Your task to perform on an android device: change text size in settings app Image 0: 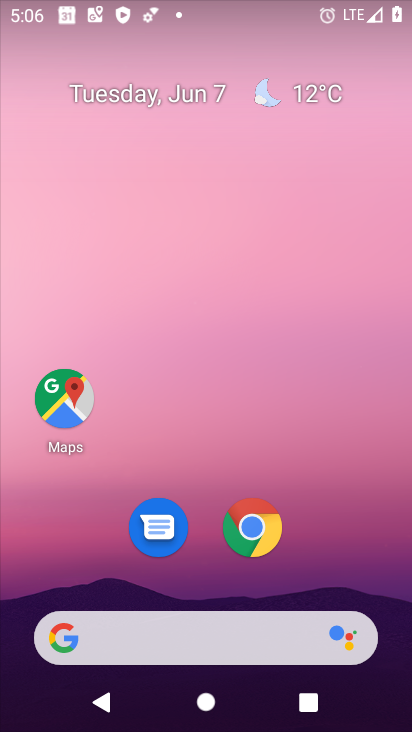
Step 0: drag from (322, 555) to (250, 34)
Your task to perform on an android device: change text size in settings app Image 1: 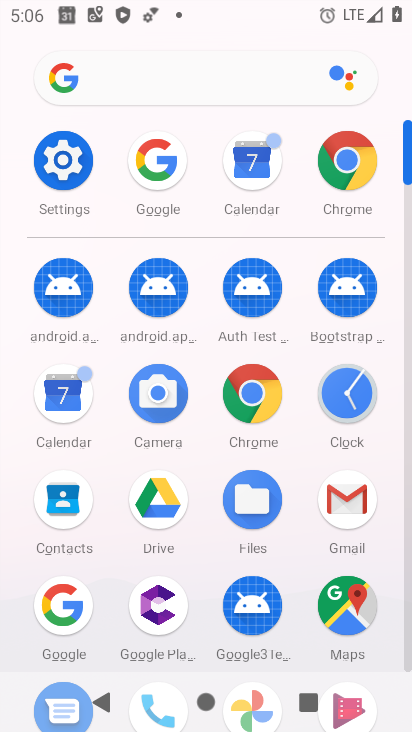
Step 1: click (66, 159)
Your task to perform on an android device: change text size in settings app Image 2: 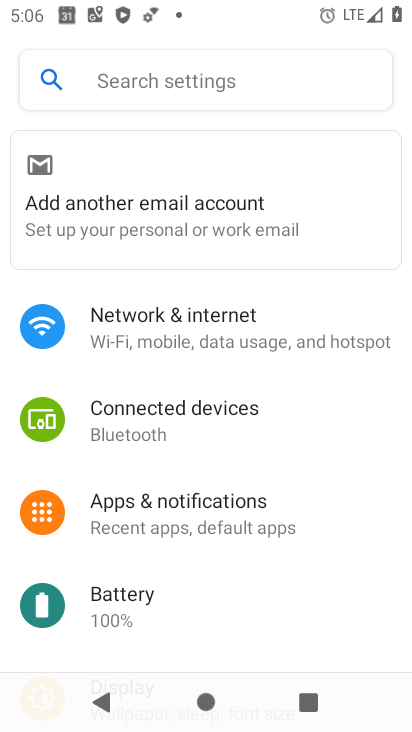
Step 2: drag from (199, 570) to (192, 382)
Your task to perform on an android device: change text size in settings app Image 3: 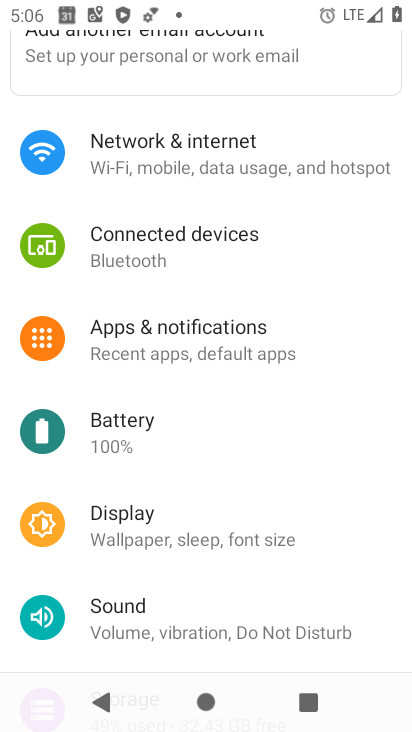
Step 3: drag from (164, 575) to (210, 377)
Your task to perform on an android device: change text size in settings app Image 4: 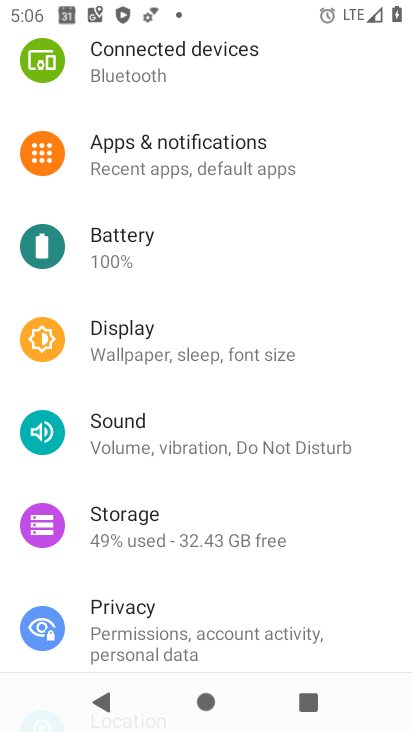
Step 4: drag from (162, 584) to (218, 436)
Your task to perform on an android device: change text size in settings app Image 5: 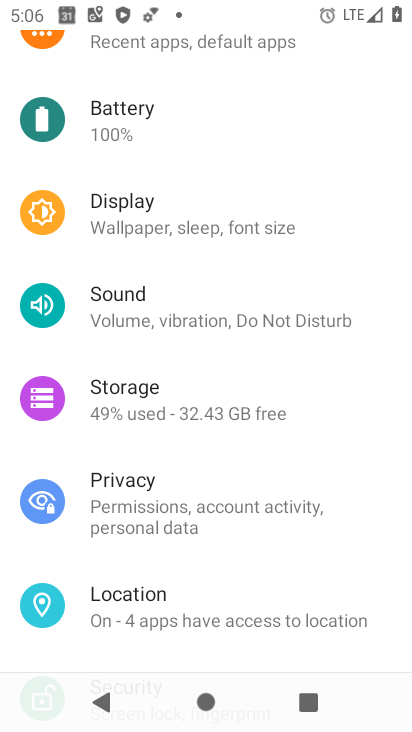
Step 5: drag from (213, 588) to (235, 423)
Your task to perform on an android device: change text size in settings app Image 6: 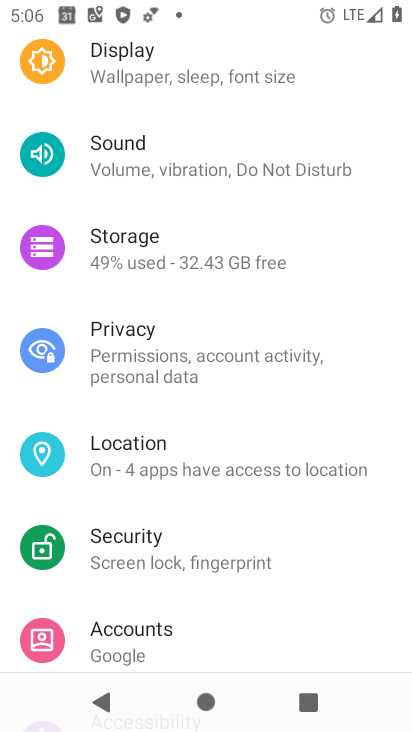
Step 6: drag from (145, 586) to (221, 422)
Your task to perform on an android device: change text size in settings app Image 7: 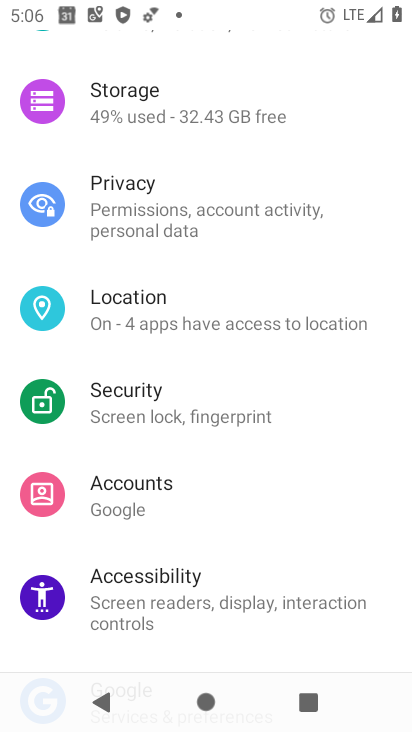
Step 7: click (153, 575)
Your task to perform on an android device: change text size in settings app Image 8: 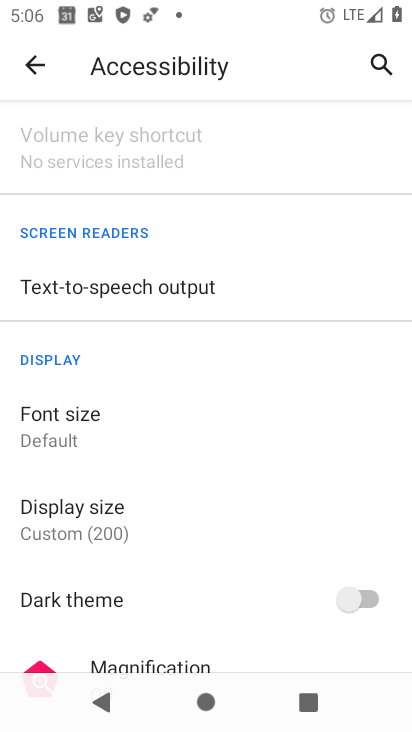
Step 8: click (116, 418)
Your task to perform on an android device: change text size in settings app Image 9: 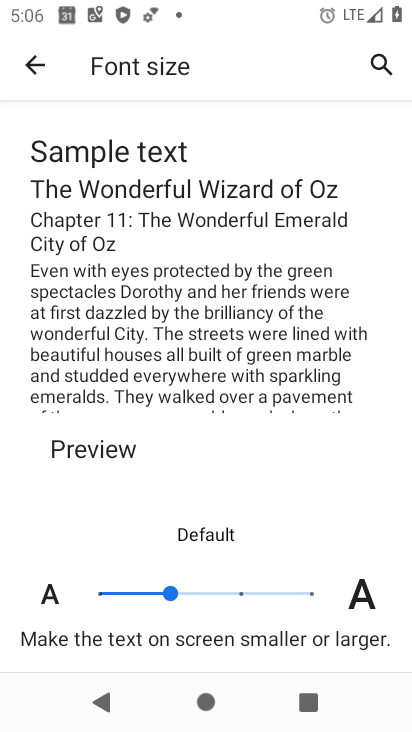
Step 9: click (236, 595)
Your task to perform on an android device: change text size in settings app Image 10: 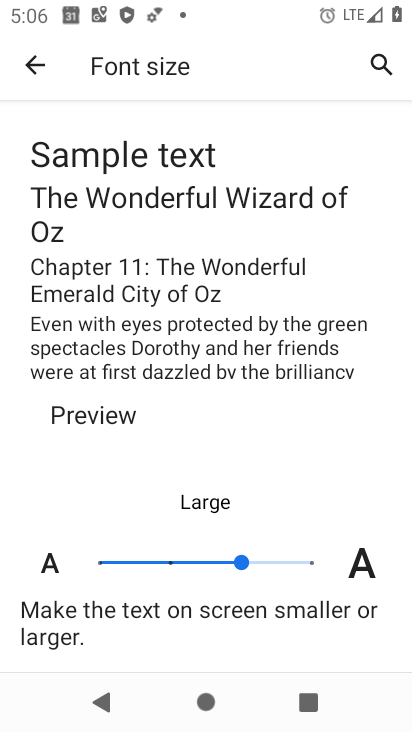
Step 10: task complete